Your task to perform on an android device: What's on my calendar today? Image 0: 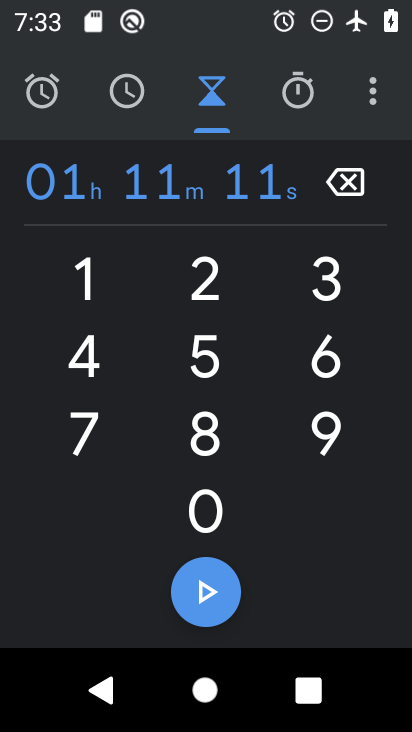
Step 0: press home button
Your task to perform on an android device: What's on my calendar today? Image 1: 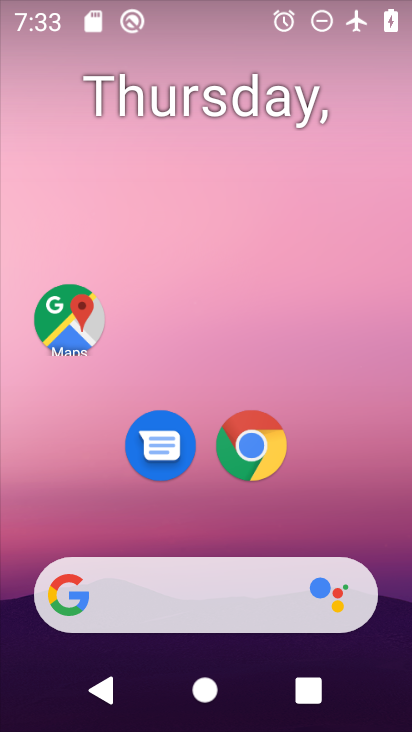
Step 1: drag from (306, 479) to (229, 165)
Your task to perform on an android device: What's on my calendar today? Image 2: 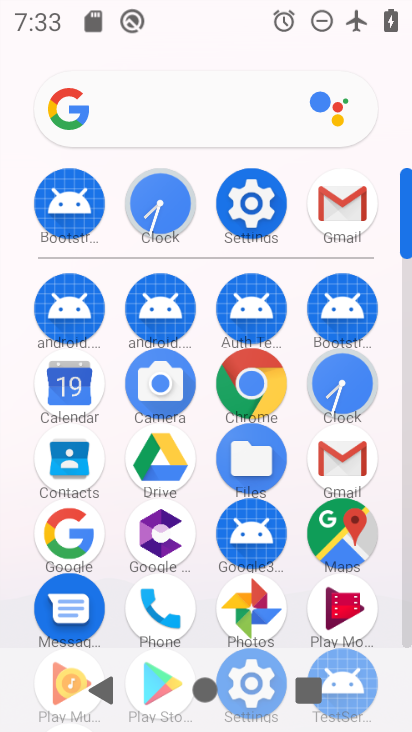
Step 2: click (69, 383)
Your task to perform on an android device: What's on my calendar today? Image 3: 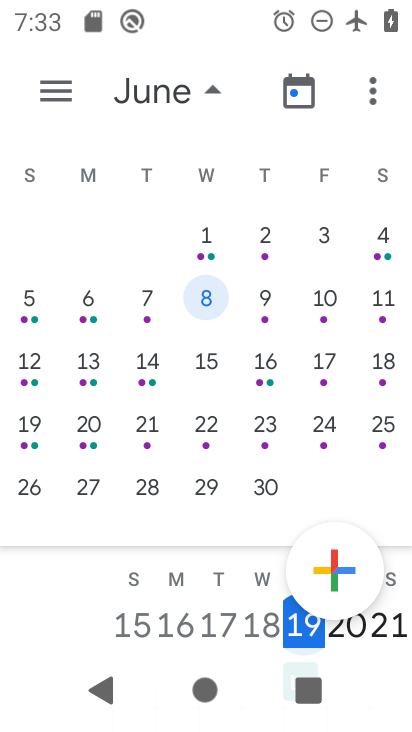
Step 3: drag from (36, 340) to (409, 462)
Your task to perform on an android device: What's on my calendar today? Image 4: 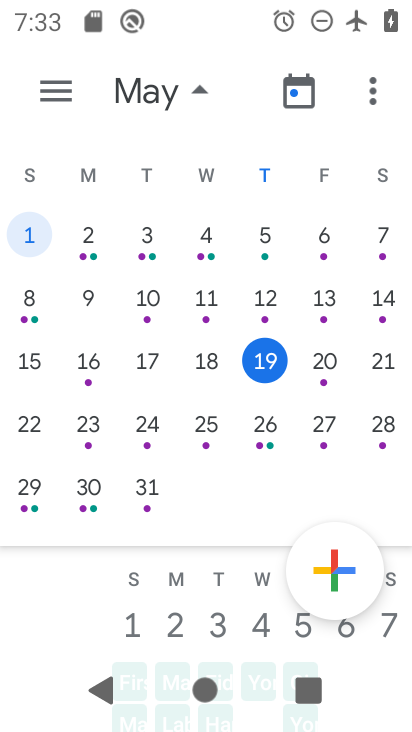
Step 4: click (276, 358)
Your task to perform on an android device: What's on my calendar today? Image 5: 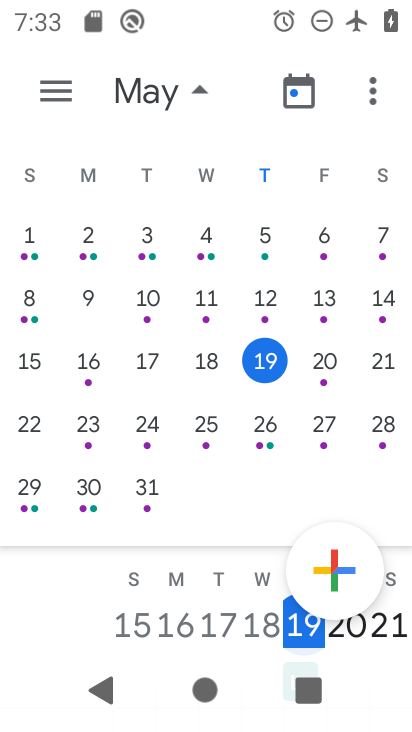
Step 5: click (276, 358)
Your task to perform on an android device: What's on my calendar today? Image 6: 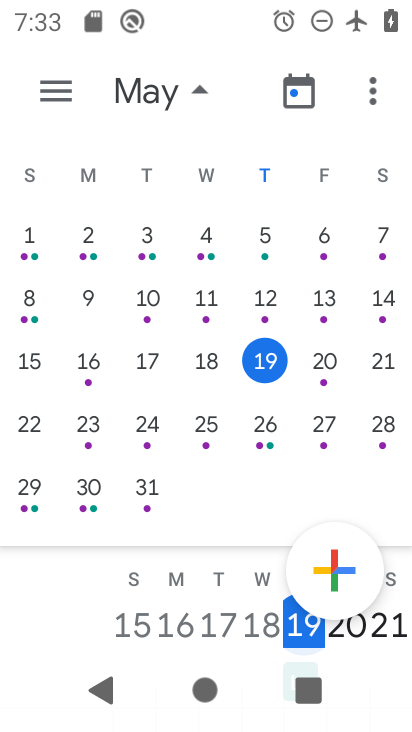
Step 6: click (276, 358)
Your task to perform on an android device: What's on my calendar today? Image 7: 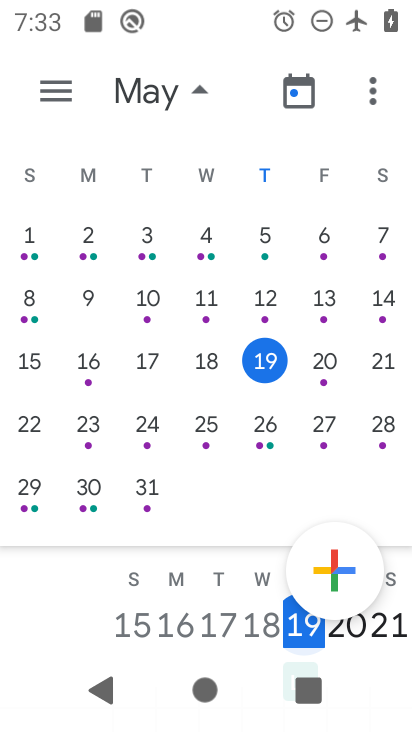
Step 7: click (276, 358)
Your task to perform on an android device: What's on my calendar today? Image 8: 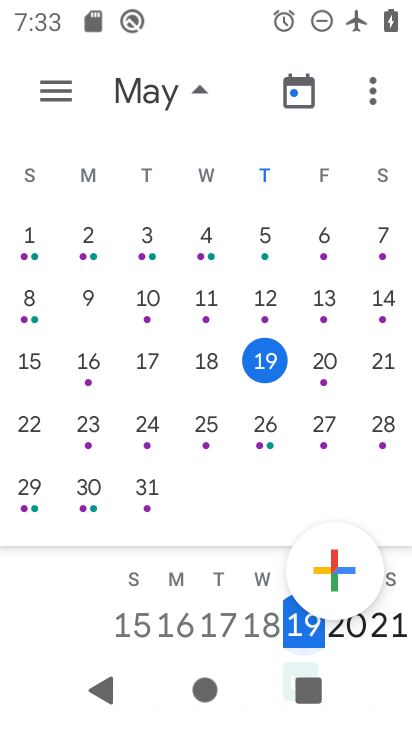
Step 8: click (276, 358)
Your task to perform on an android device: What's on my calendar today? Image 9: 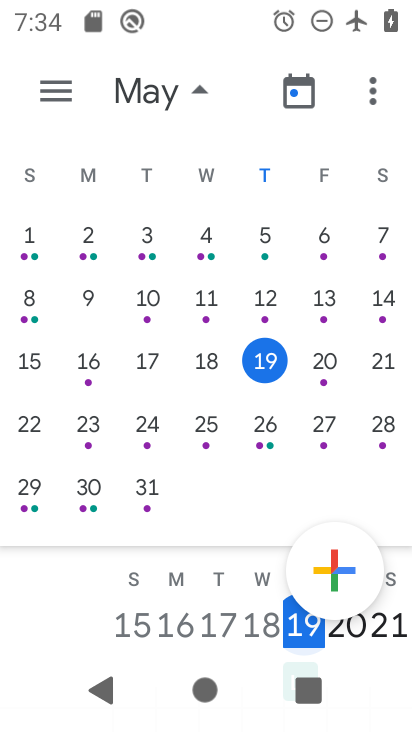
Step 9: drag from (258, 518) to (239, 198)
Your task to perform on an android device: What's on my calendar today? Image 10: 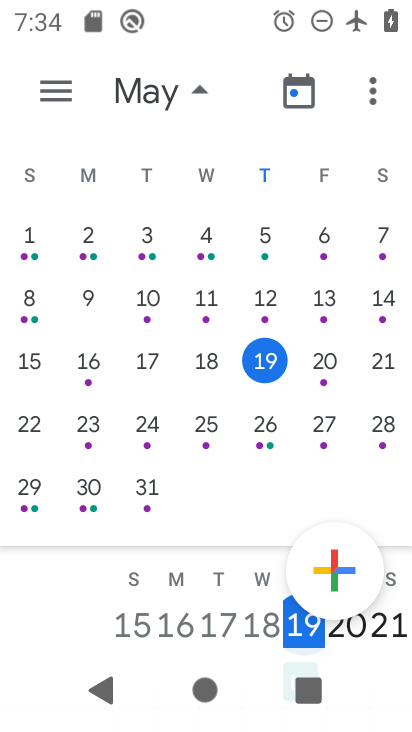
Step 10: click (228, 438)
Your task to perform on an android device: What's on my calendar today? Image 11: 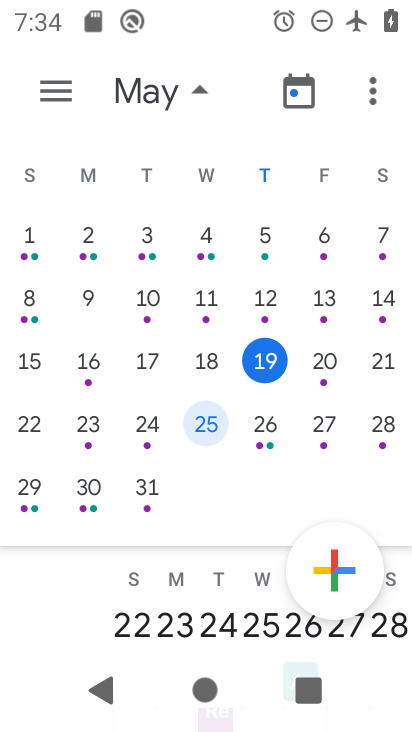
Step 11: click (59, 89)
Your task to perform on an android device: What's on my calendar today? Image 12: 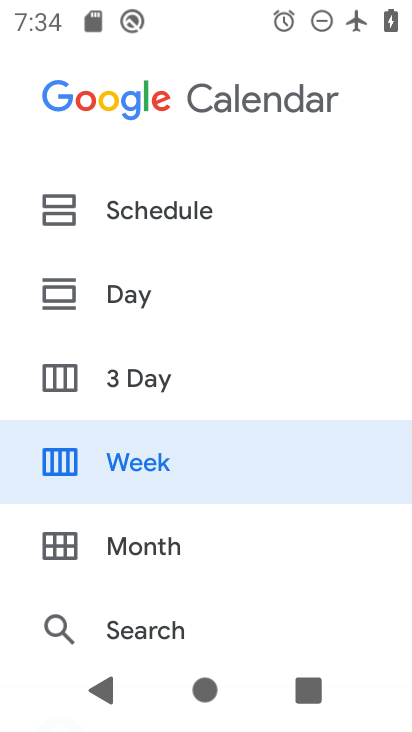
Step 12: click (129, 283)
Your task to perform on an android device: What's on my calendar today? Image 13: 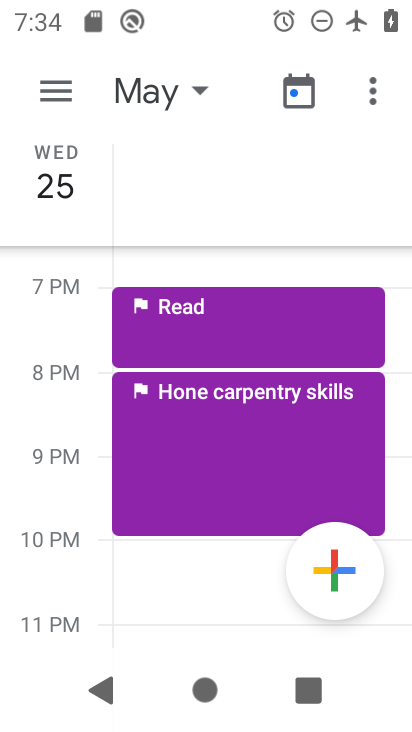
Step 13: click (194, 84)
Your task to perform on an android device: What's on my calendar today? Image 14: 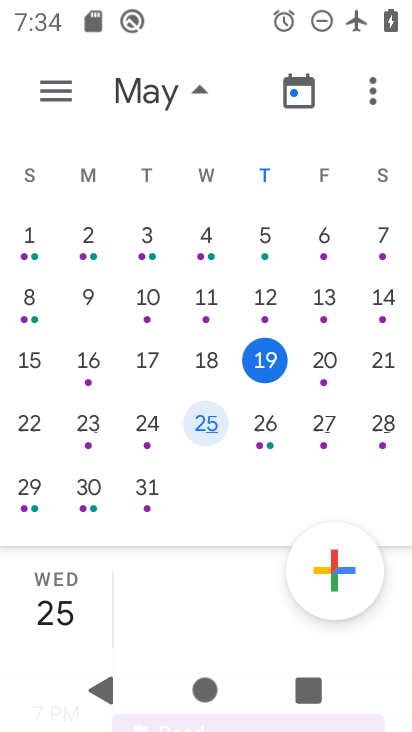
Step 14: click (271, 357)
Your task to perform on an android device: What's on my calendar today? Image 15: 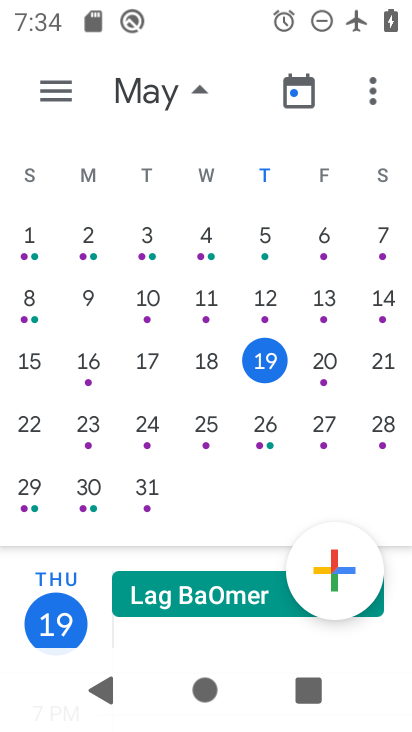
Step 15: task complete